Your task to perform on an android device: delete a single message in the gmail app Image 0: 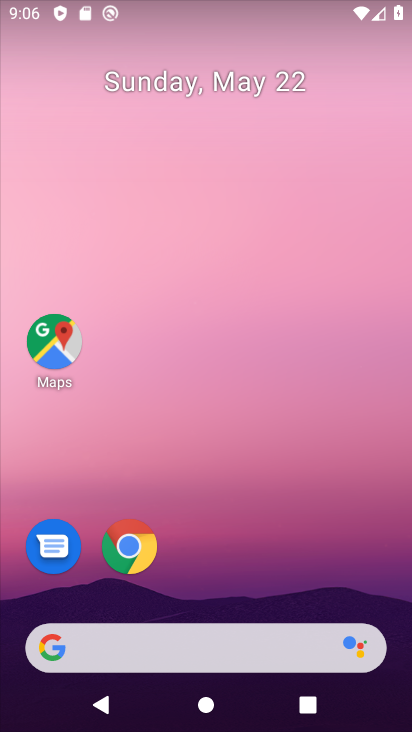
Step 0: drag from (275, 396) to (347, 147)
Your task to perform on an android device: delete a single message in the gmail app Image 1: 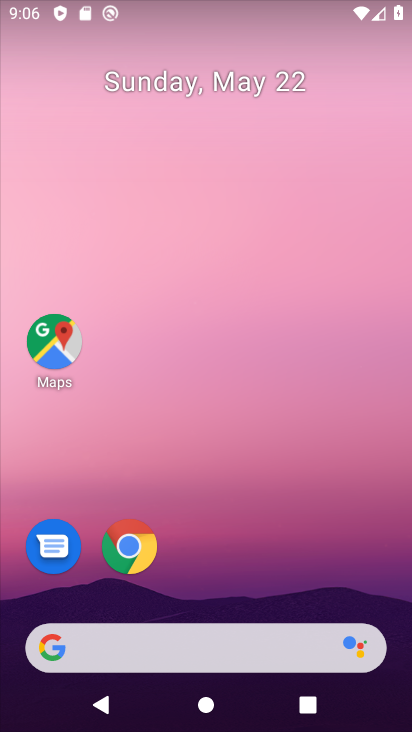
Step 1: drag from (205, 592) to (328, 7)
Your task to perform on an android device: delete a single message in the gmail app Image 2: 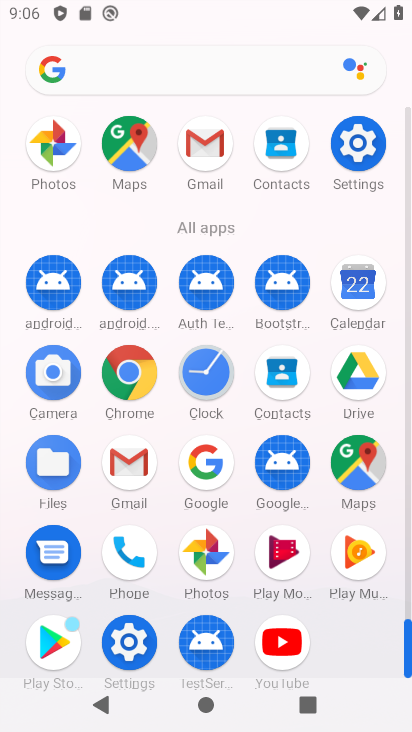
Step 2: click (128, 461)
Your task to perform on an android device: delete a single message in the gmail app Image 3: 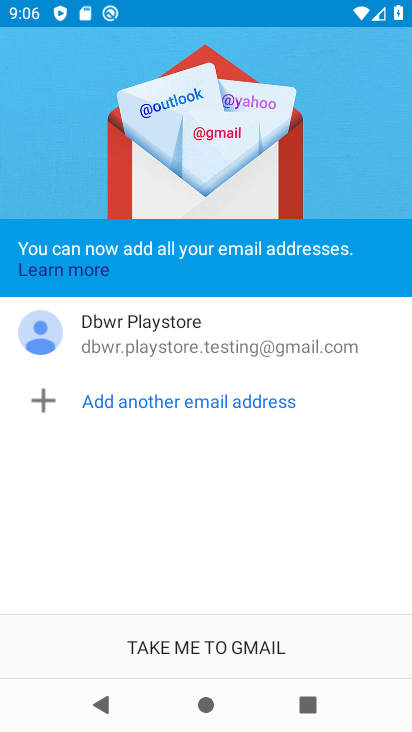
Step 3: click (219, 632)
Your task to perform on an android device: delete a single message in the gmail app Image 4: 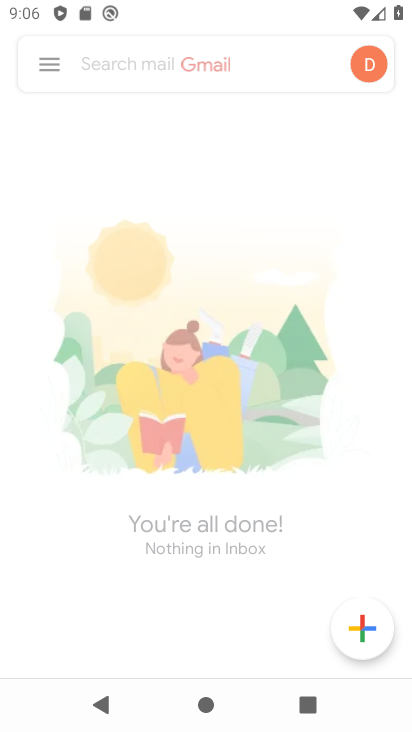
Step 4: click (53, 68)
Your task to perform on an android device: delete a single message in the gmail app Image 5: 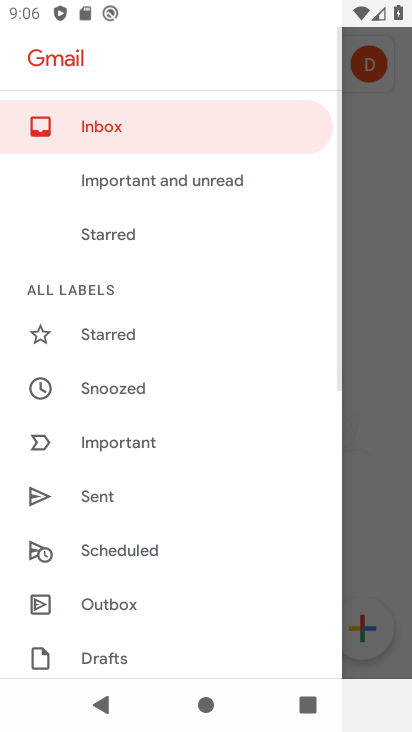
Step 5: click (120, 125)
Your task to perform on an android device: delete a single message in the gmail app Image 6: 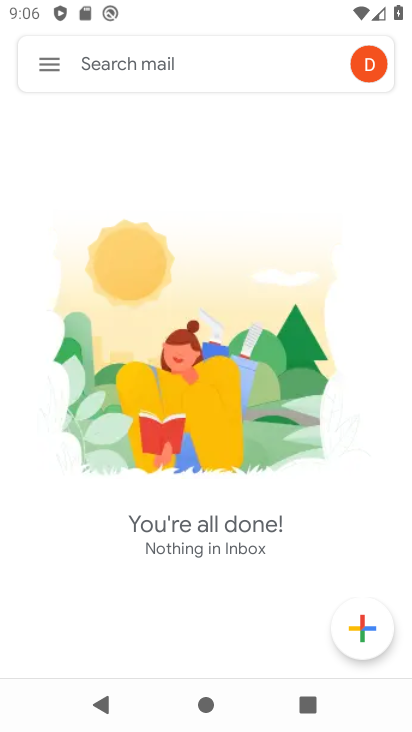
Step 6: task complete